Your task to perform on an android device: turn on improve location accuracy Image 0: 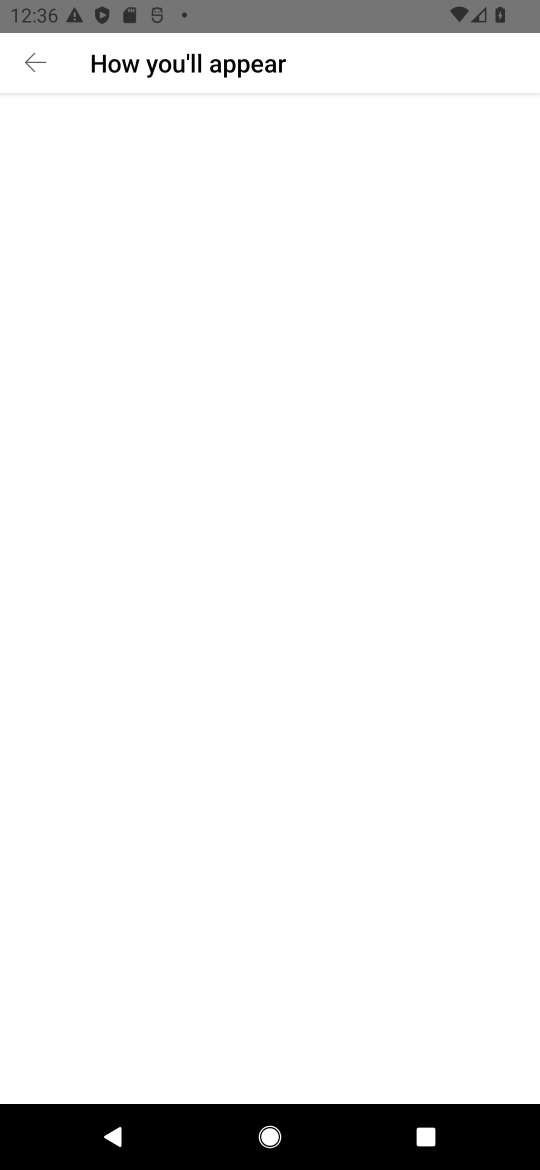
Step 0: press home button
Your task to perform on an android device: turn on improve location accuracy Image 1: 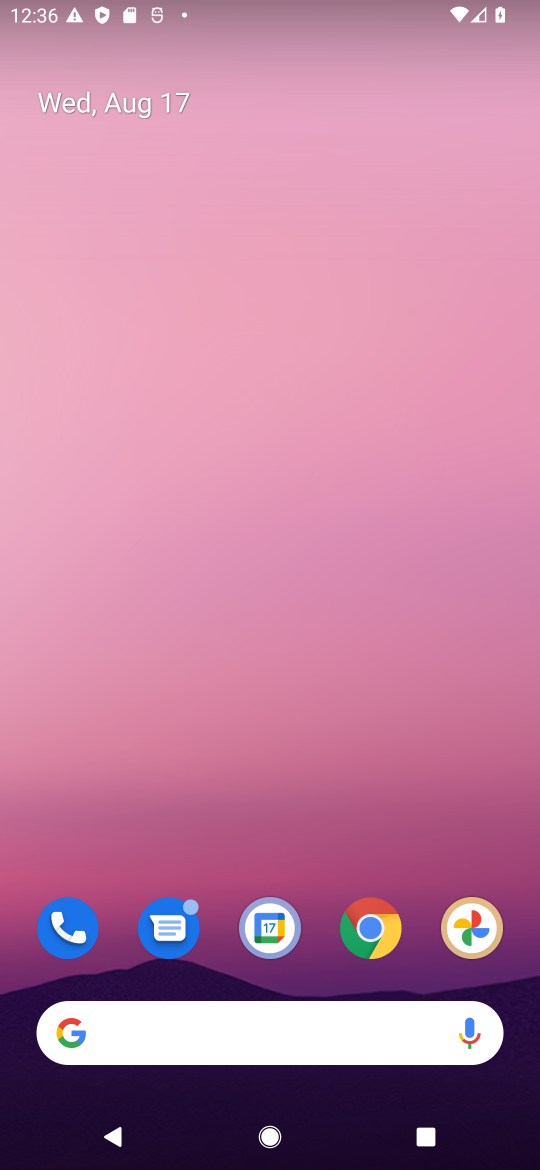
Step 1: drag from (287, 868) to (319, 171)
Your task to perform on an android device: turn on improve location accuracy Image 2: 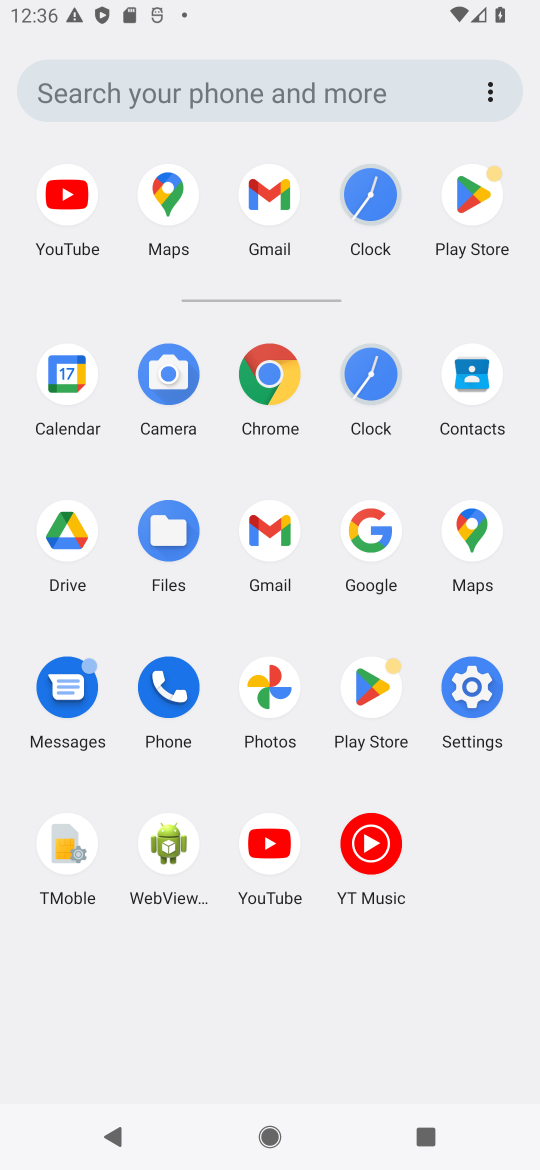
Step 2: click (448, 696)
Your task to perform on an android device: turn on improve location accuracy Image 3: 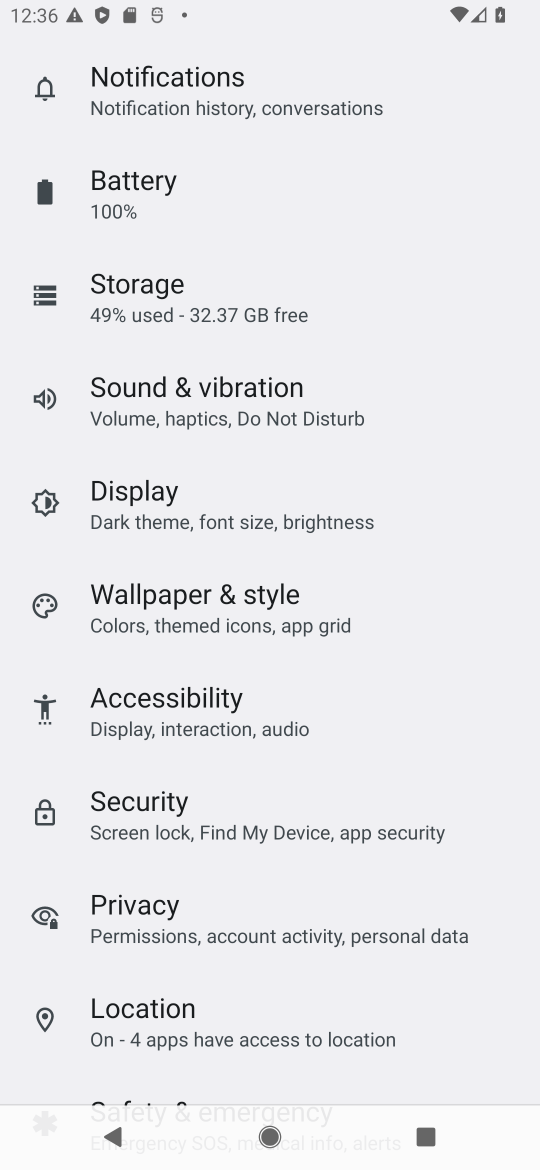
Step 3: click (191, 1013)
Your task to perform on an android device: turn on improve location accuracy Image 4: 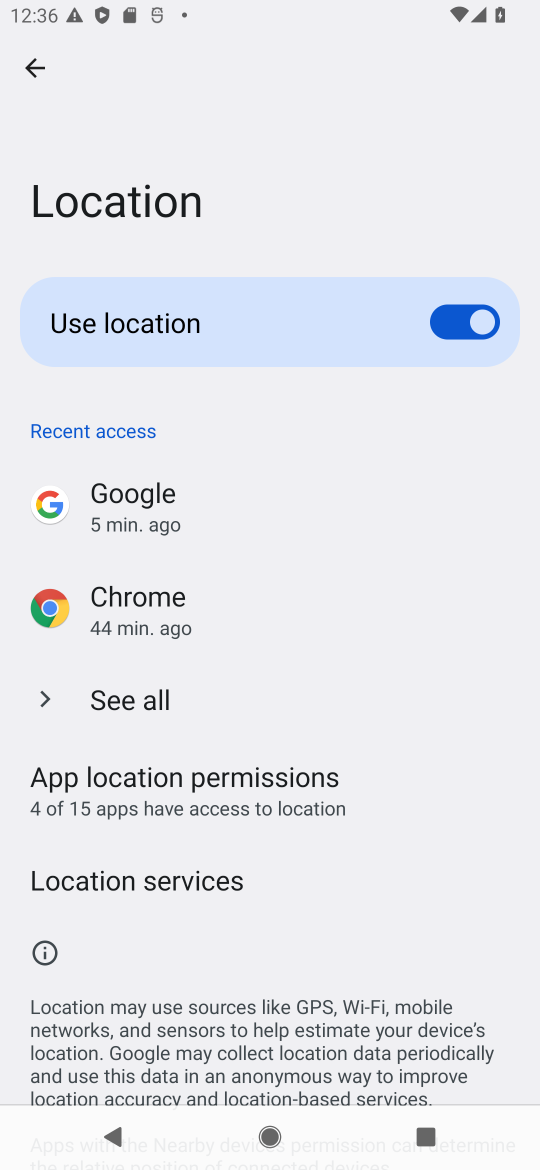
Step 4: click (229, 869)
Your task to perform on an android device: turn on improve location accuracy Image 5: 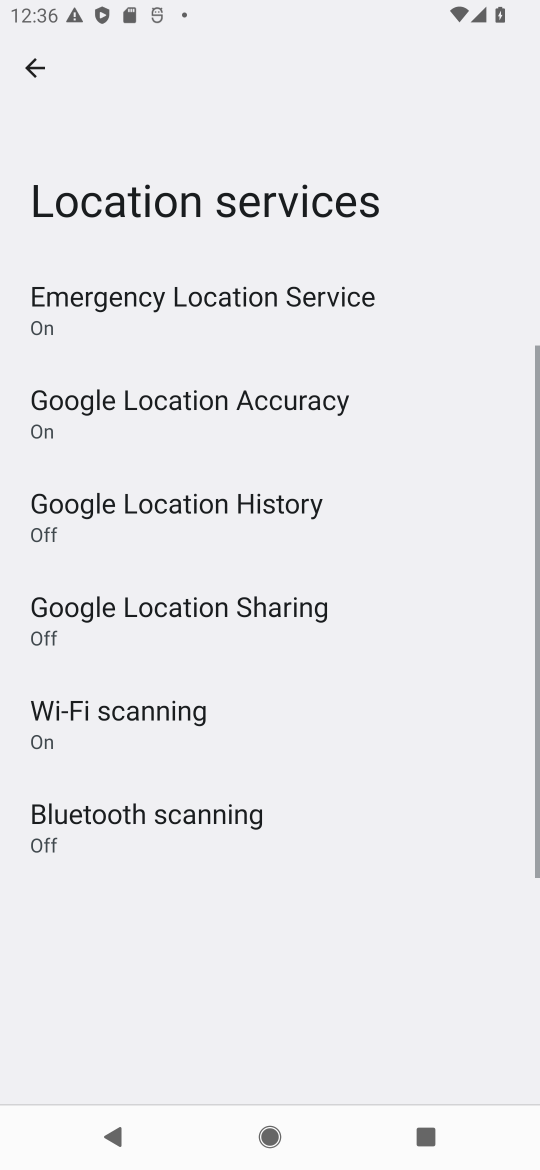
Step 5: click (257, 415)
Your task to perform on an android device: turn on improve location accuracy Image 6: 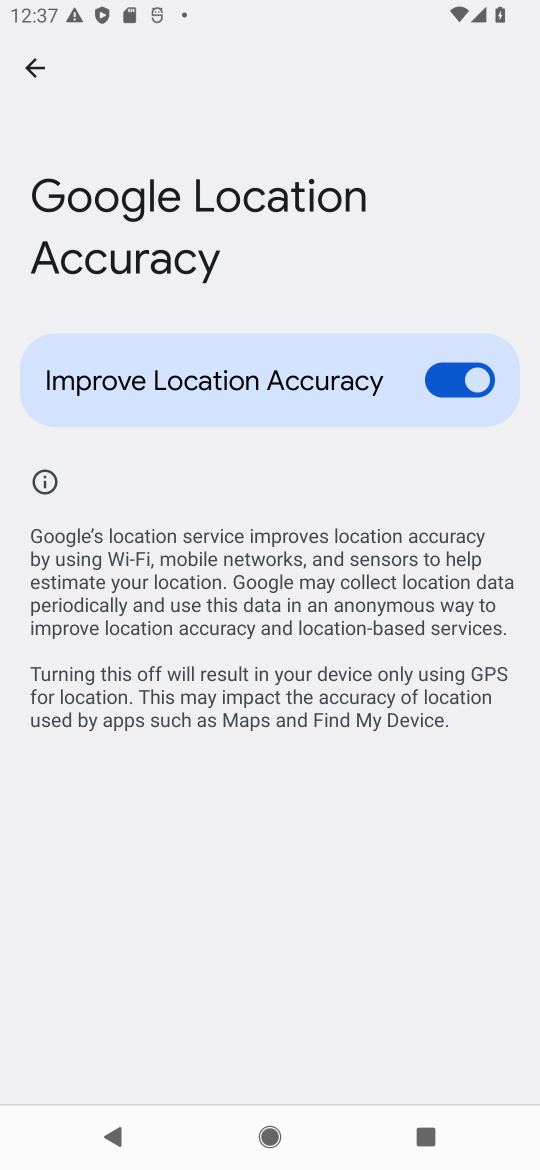
Step 6: task complete